Your task to perform on an android device: Go to Wikipedia Image 0: 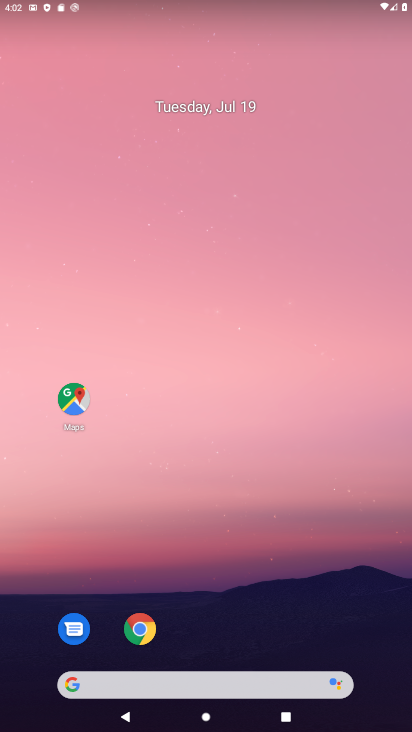
Step 0: drag from (291, 585) to (275, 135)
Your task to perform on an android device: Go to Wikipedia Image 1: 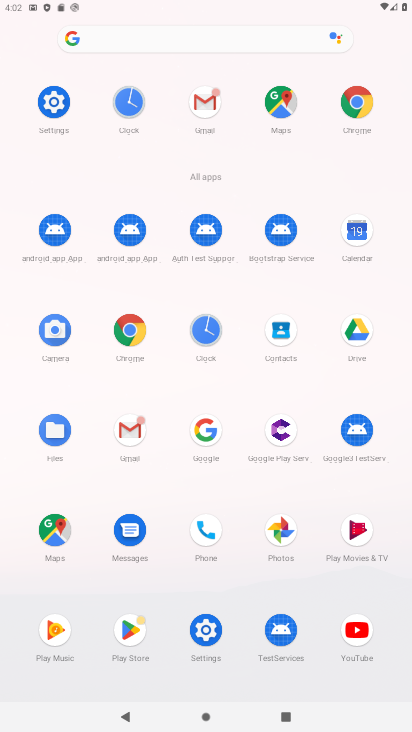
Step 1: click (356, 104)
Your task to perform on an android device: Go to Wikipedia Image 2: 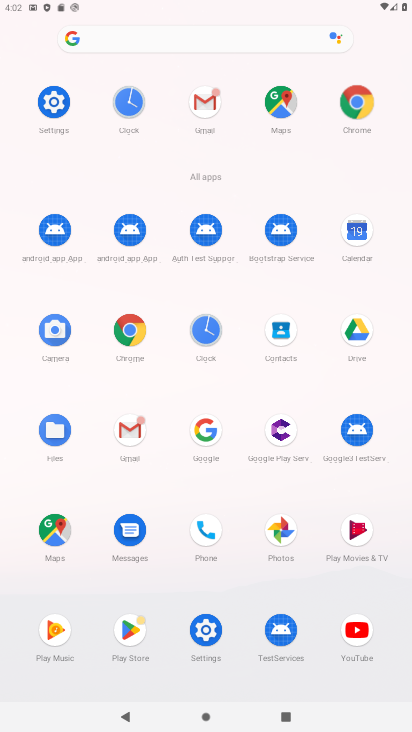
Step 2: click (356, 105)
Your task to perform on an android device: Go to Wikipedia Image 3: 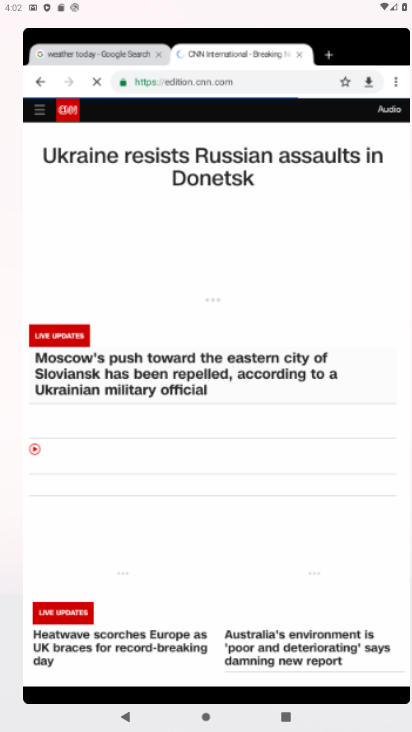
Step 3: click (356, 105)
Your task to perform on an android device: Go to Wikipedia Image 4: 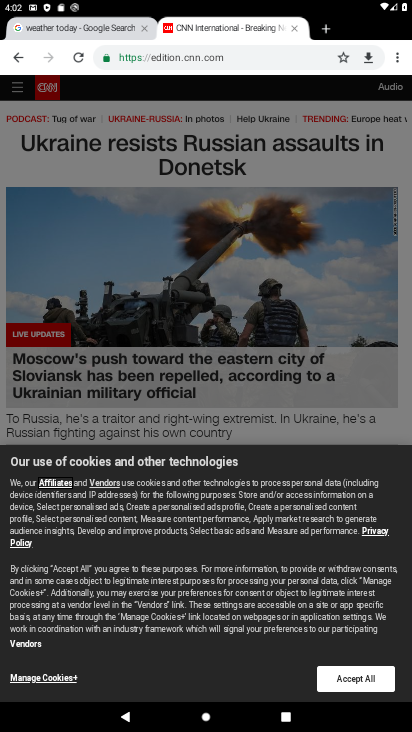
Step 4: drag from (391, 59) to (285, 54)
Your task to perform on an android device: Go to Wikipedia Image 5: 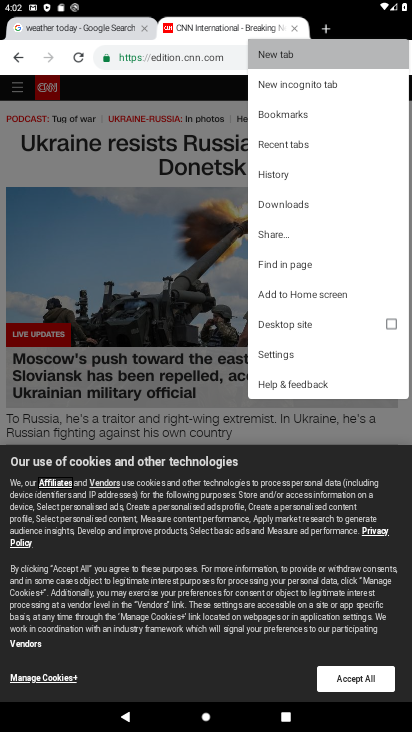
Step 5: click (285, 54)
Your task to perform on an android device: Go to Wikipedia Image 6: 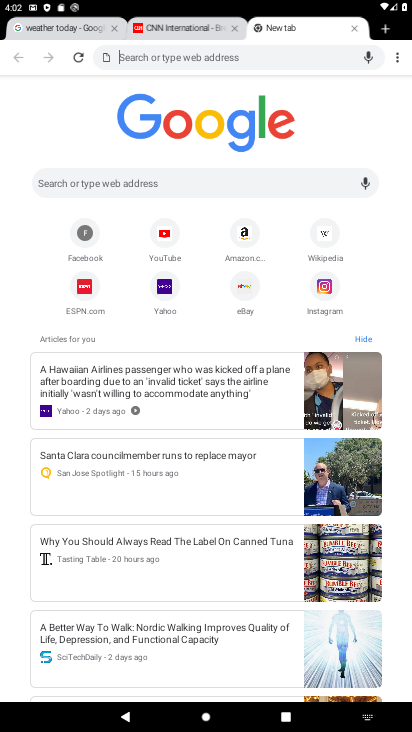
Step 6: click (320, 229)
Your task to perform on an android device: Go to Wikipedia Image 7: 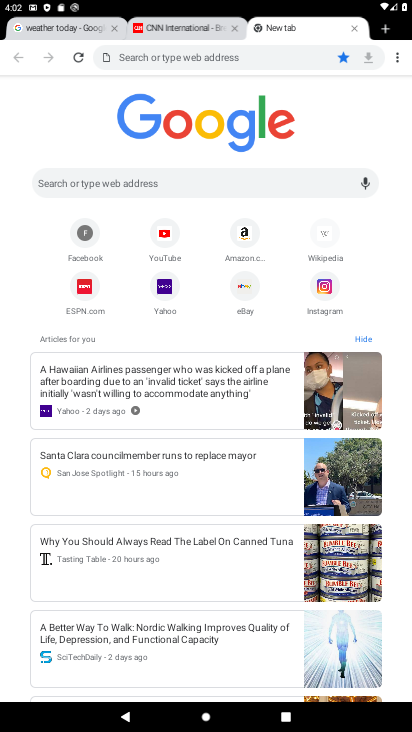
Step 7: click (320, 229)
Your task to perform on an android device: Go to Wikipedia Image 8: 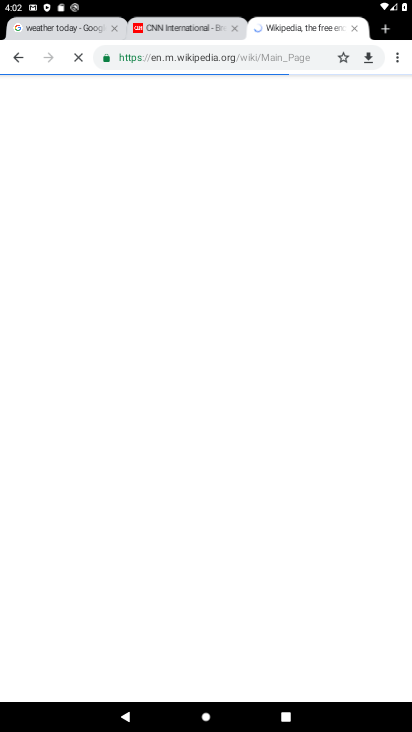
Step 8: click (325, 225)
Your task to perform on an android device: Go to Wikipedia Image 9: 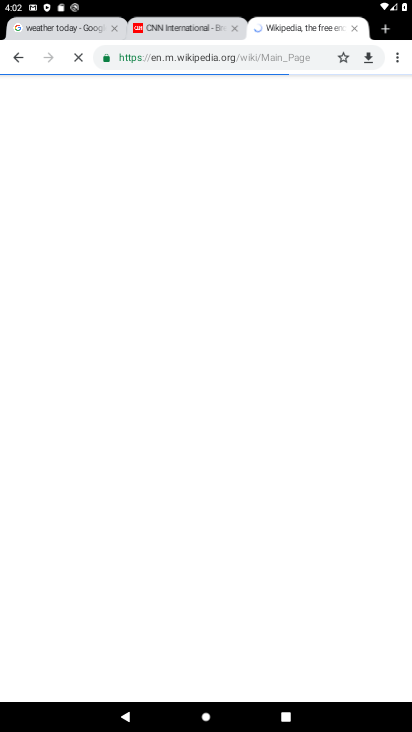
Step 9: click (325, 225)
Your task to perform on an android device: Go to Wikipedia Image 10: 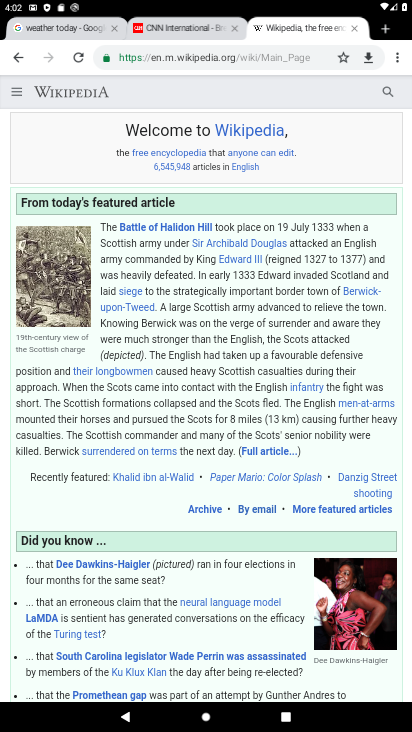
Step 10: task complete